Your task to perform on an android device: Clear the cart on bestbuy.com. Add razer naga to the cart on bestbuy.com Image 0: 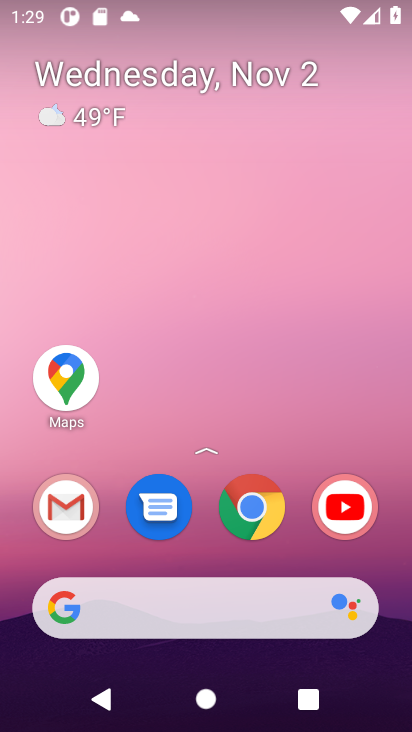
Step 0: click (182, 597)
Your task to perform on an android device: Clear the cart on bestbuy.com. Add razer naga to the cart on bestbuy.com Image 1: 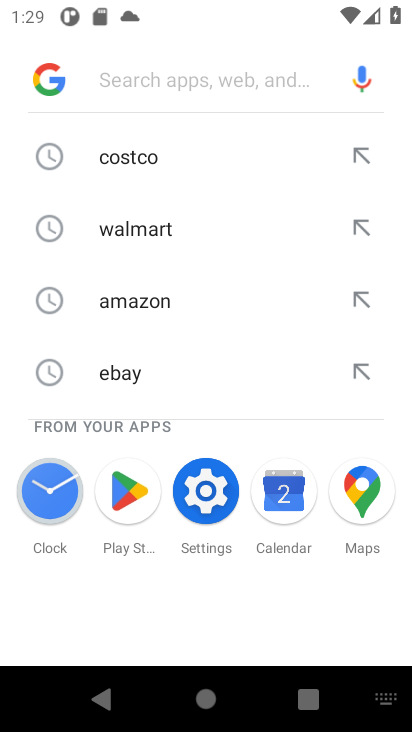
Step 1: type "bestbuy.com."
Your task to perform on an android device: Clear the cart on bestbuy.com. Add razer naga to the cart on bestbuy.com Image 2: 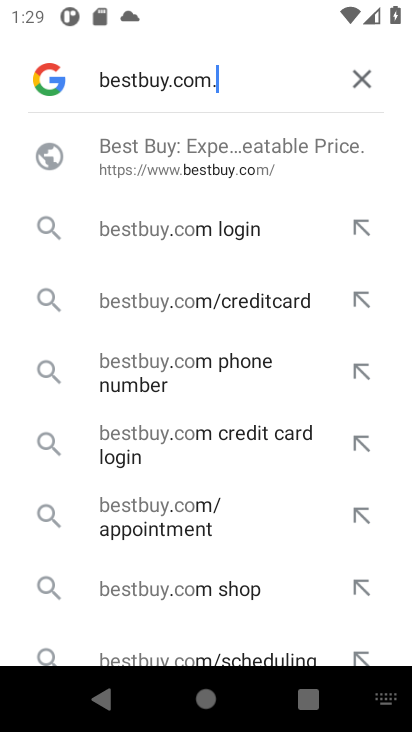
Step 2: type ""
Your task to perform on an android device: Clear the cart on bestbuy.com. Add razer naga to the cart on bestbuy.com Image 3: 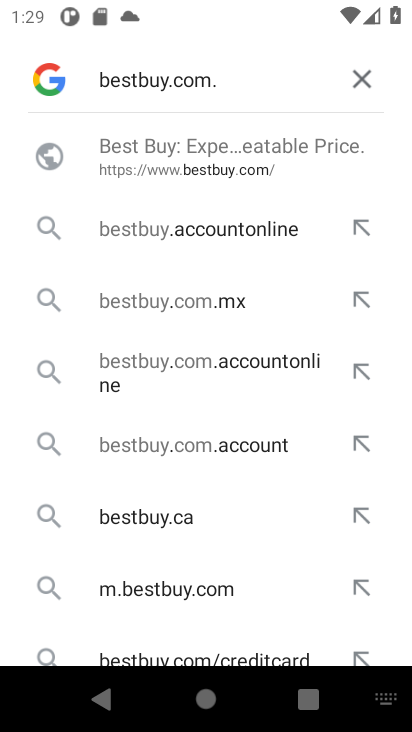
Step 3: click (197, 145)
Your task to perform on an android device: Clear the cart on bestbuy.com. Add razer naga to the cart on bestbuy.com Image 4: 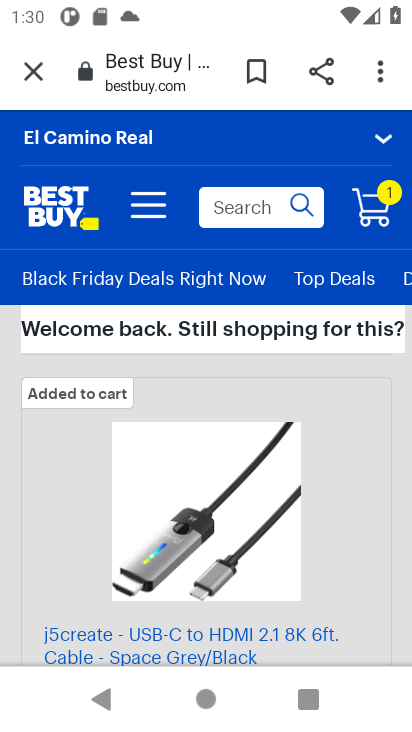
Step 4: drag from (335, 561) to (339, 237)
Your task to perform on an android device: Clear the cart on bestbuy.com. Add razer naga to the cart on bestbuy.com Image 5: 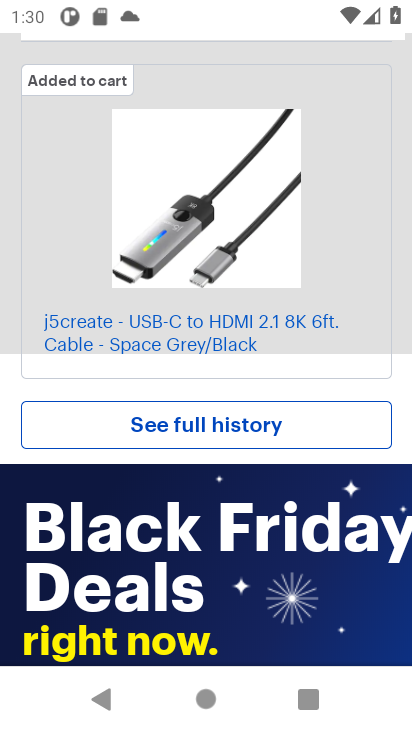
Step 5: drag from (326, 216) to (364, 551)
Your task to perform on an android device: Clear the cart on bestbuy.com. Add razer naga to the cart on bestbuy.com Image 6: 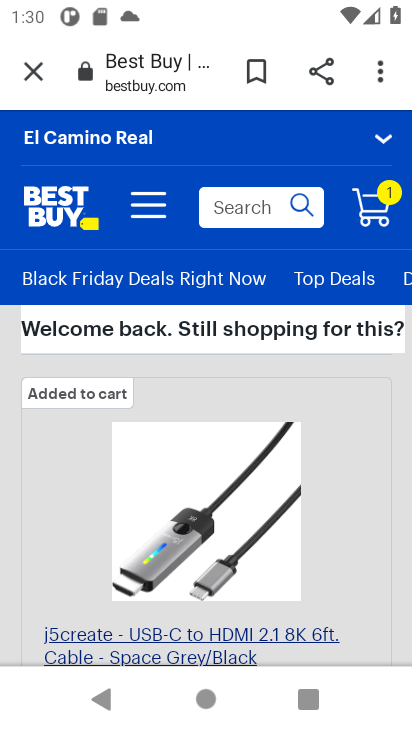
Step 6: click (378, 200)
Your task to perform on an android device: Clear the cart on bestbuy.com. Add razer naga to the cart on bestbuy.com Image 7: 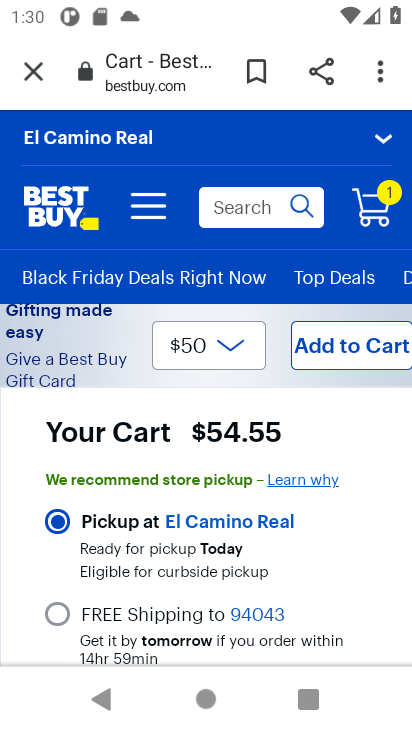
Step 7: drag from (331, 627) to (310, 338)
Your task to perform on an android device: Clear the cart on bestbuy.com. Add razer naga to the cart on bestbuy.com Image 8: 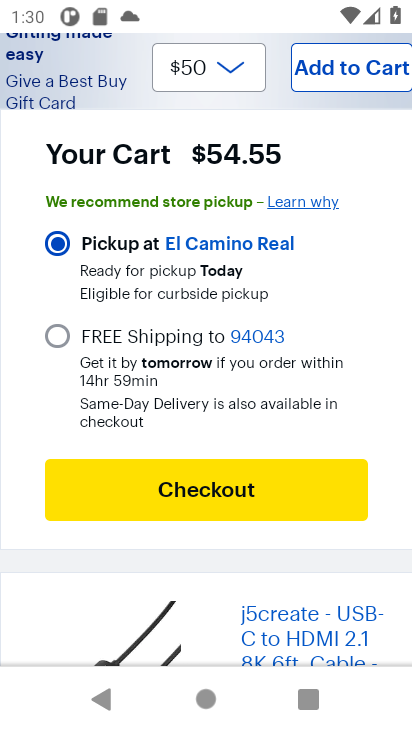
Step 8: drag from (301, 458) to (320, 240)
Your task to perform on an android device: Clear the cart on bestbuy.com. Add razer naga to the cart on bestbuy.com Image 9: 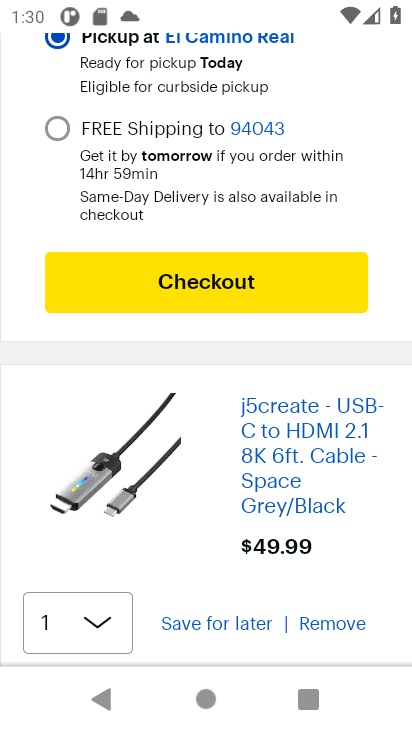
Step 9: click (306, 622)
Your task to perform on an android device: Clear the cart on bestbuy.com. Add razer naga to the cart on bestbuy.com Image 10: 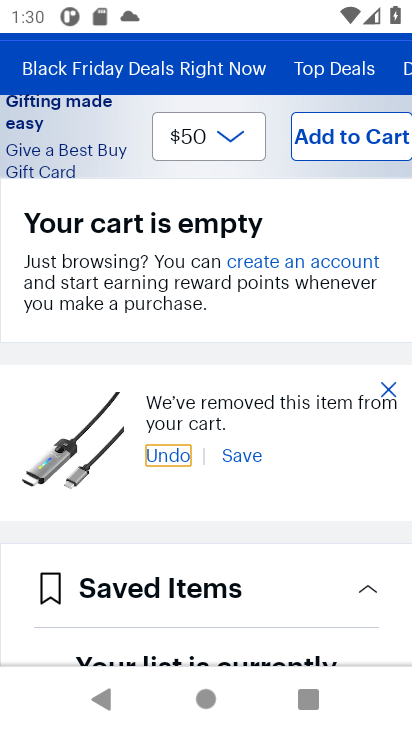
Step 10: task complete